Your task to perform on an android device: Go to sound settings Image 0: 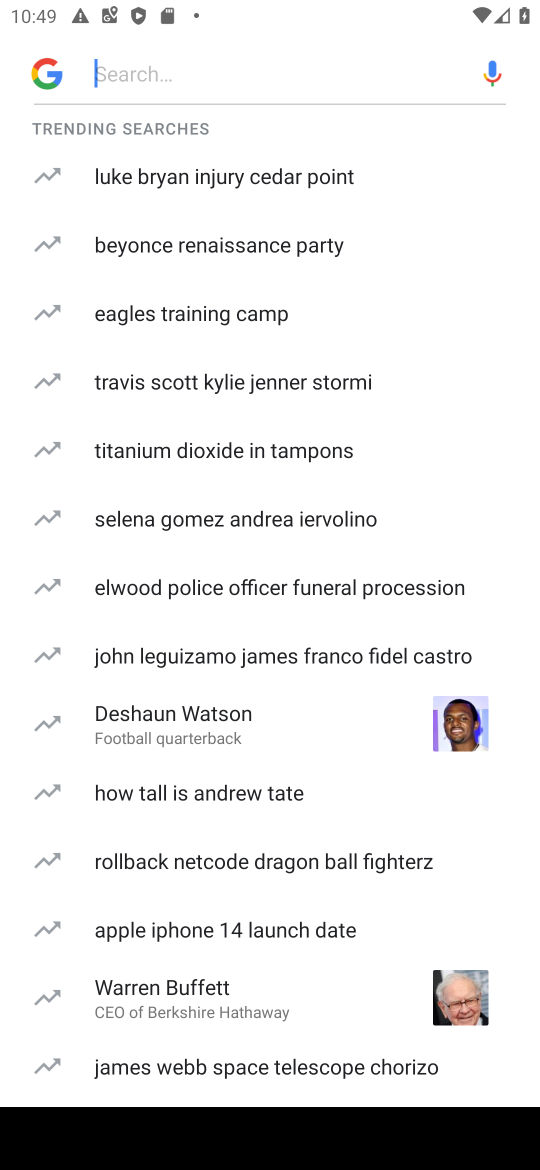
Step 0: press home button
Your task to perform on an android device: Go to sound settings Image 1: 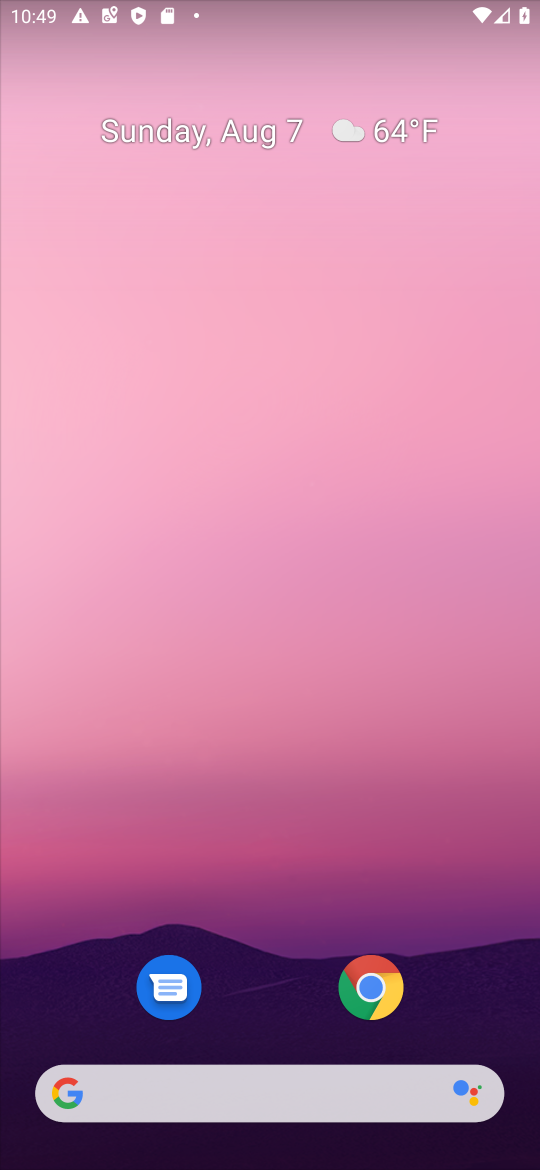
Step 1: drag from (259, 952) to (423, 61)
Your task to perform on an android device: Go to sound settings Image 2: 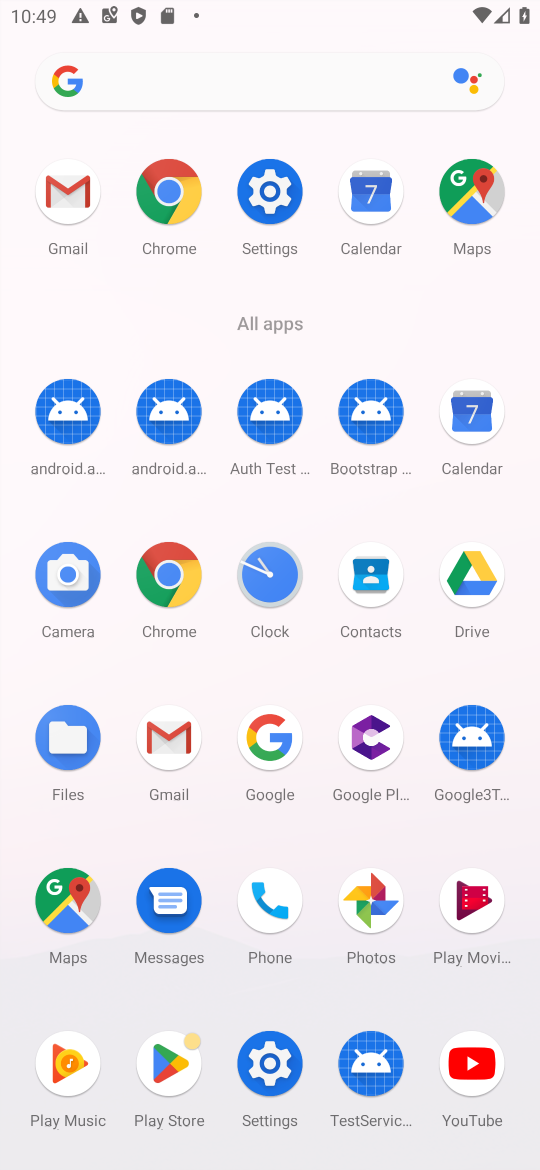
Step 2: click (270, 1052)
Your task to perform on an android device: Go to sound settings Image 3: 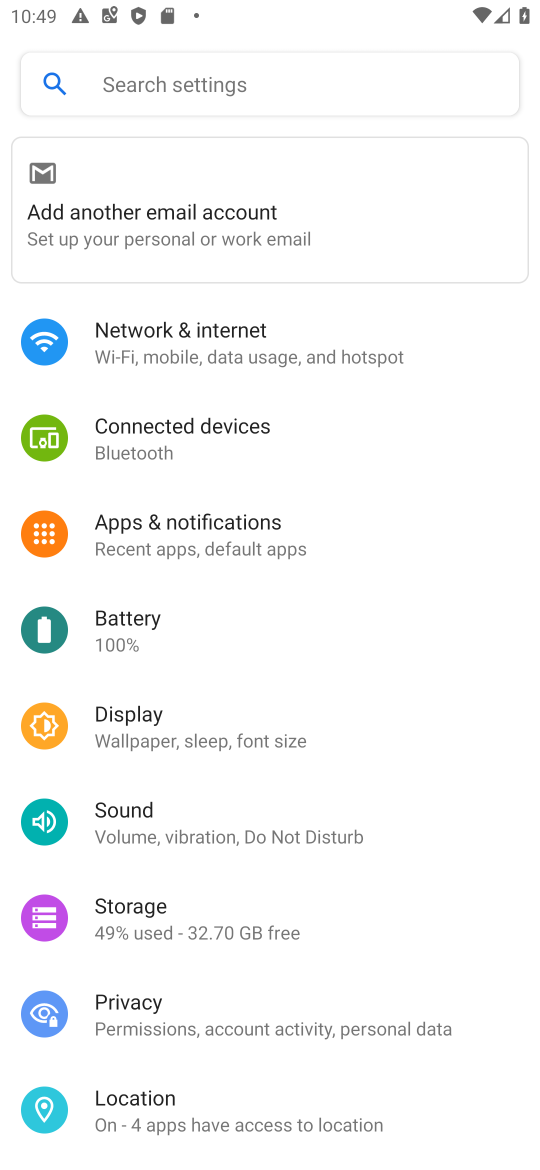
Step 3: click (208, 818)
Your task to perform on an android device: Go to sound settings Image 4: 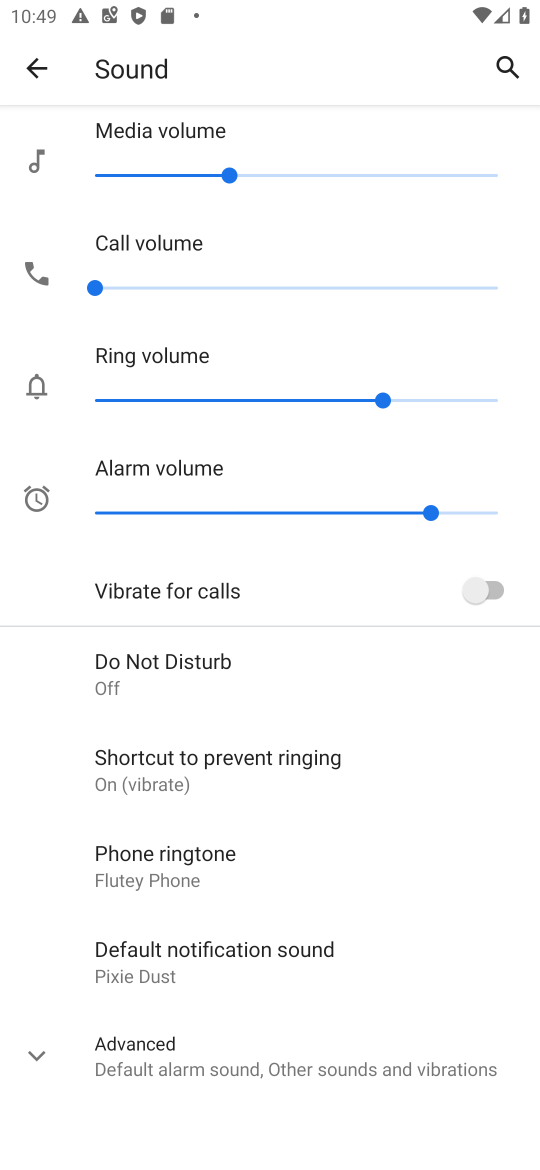
Step 4: task complete